Your task to perform on an android device: toggle translation in the chrome app Image 0: 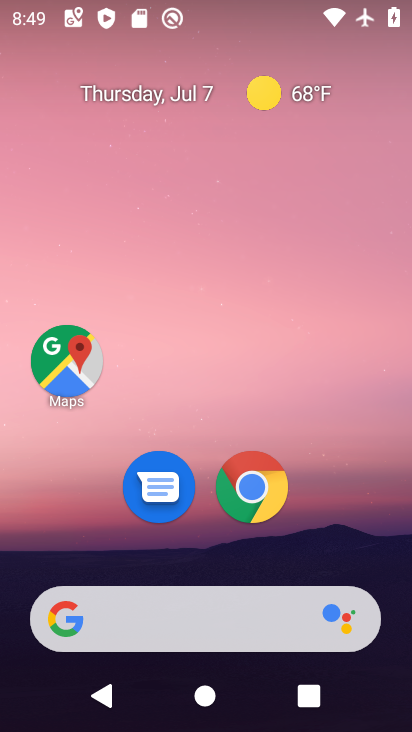
Step 0: drag from (199, 560) to (402, 496)
Your task to perform on an android device: toggle translation in the chrome app Image 1: 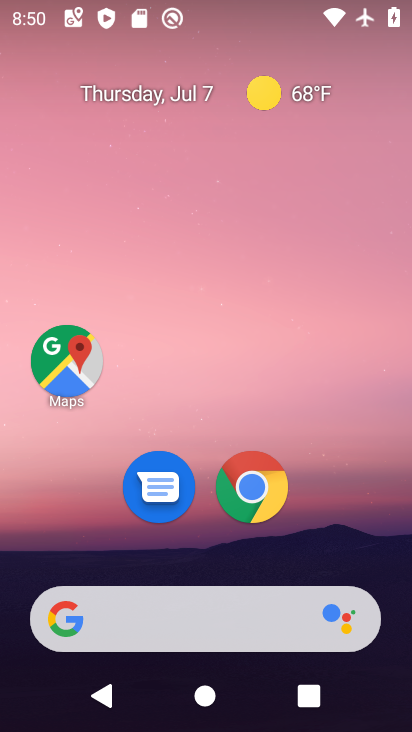
Step 1: click (265, 493)
Your task to perform on an android device: toggle translation in the chrome app Image 2: 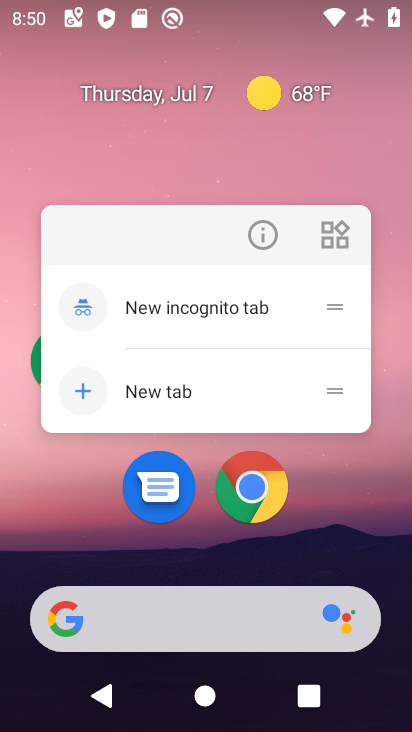
Step 2: click (222, 556)
Your task to perform on an android device: toggle translation in the chrome app Image 3: 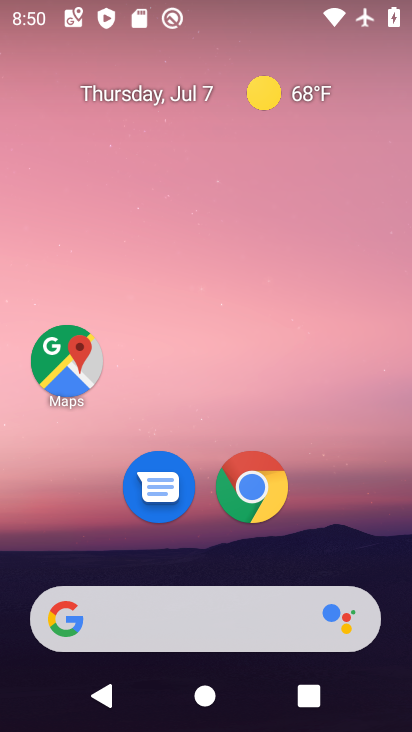
Step 3: click (248, 491)
Your task to perform on an android device: toggle translation in the chrome app Image 4: 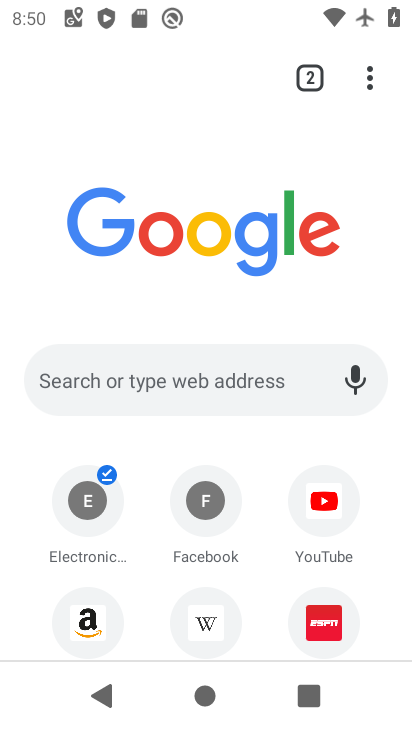
Step 4: click (366, 74)
Your task to perform on an android device: toggle translation in the chrome app Image 5: 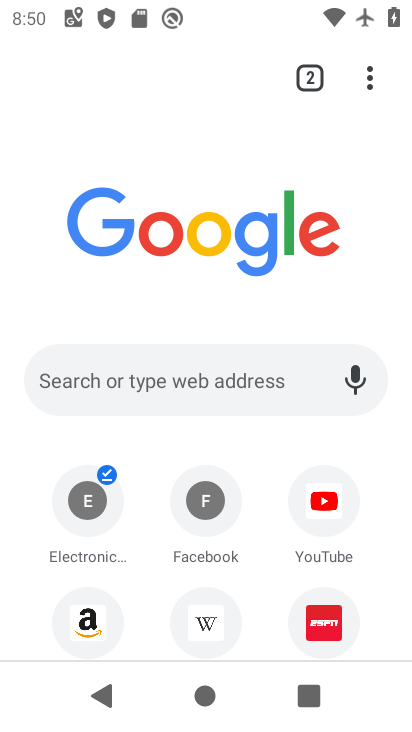
Step 5: drag from (367, 82) to (86, 558)
Your task to perform on an android device: toggle translation in the chrome app Image 6: 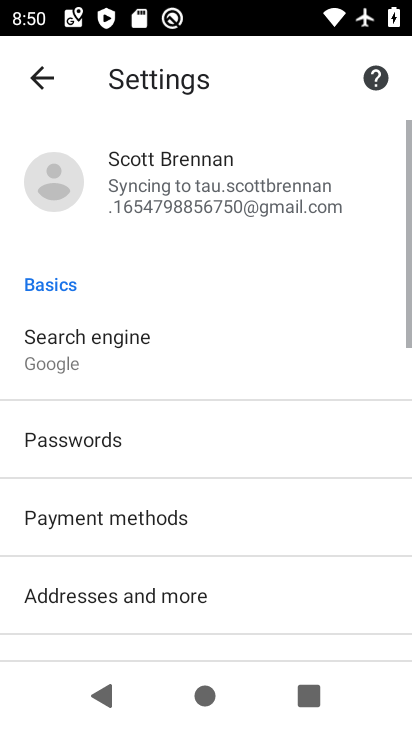
Step 6: drag from (184, 587) to (194, 140)
Your task to perform on an android device: toggle translation in the chrome app Image 7: 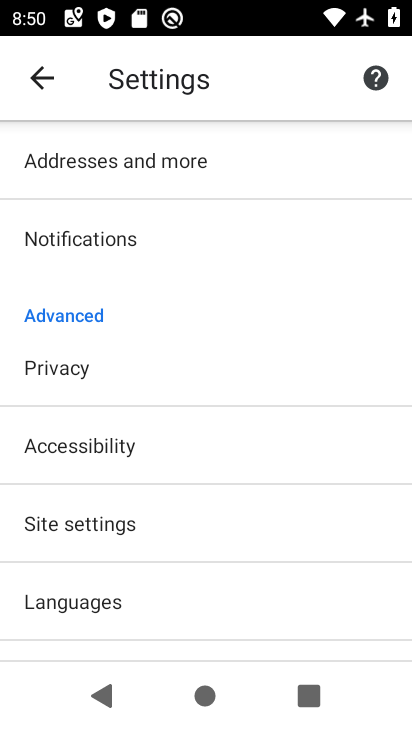
Step 7: click (105, 601)
Your task to perform on an android device: toggle translation in the chrome app Image 8: 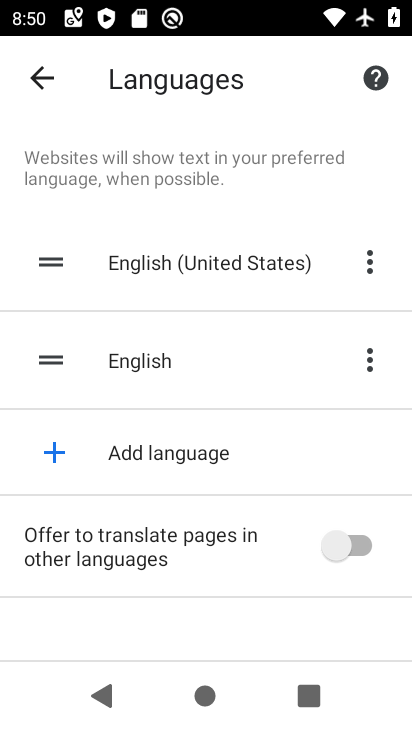
Step 8: click (357, 551)
Your task to perform on an android device: toggle translation in the chrome app Image 9: 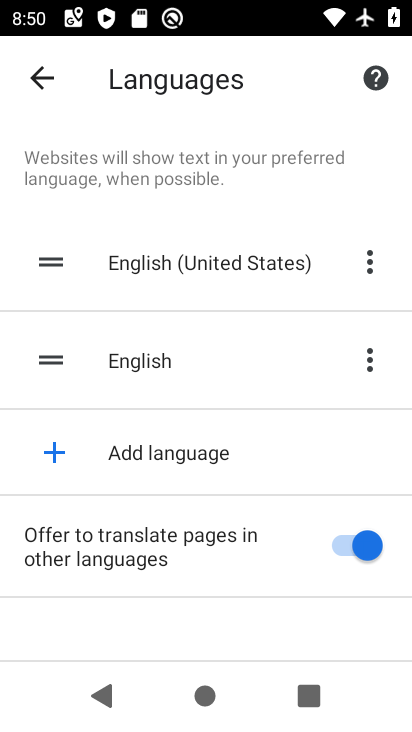
Step 9: task complete